Your task to perform on an android device: Search for vegetarian restaurants on Maps Image 0: 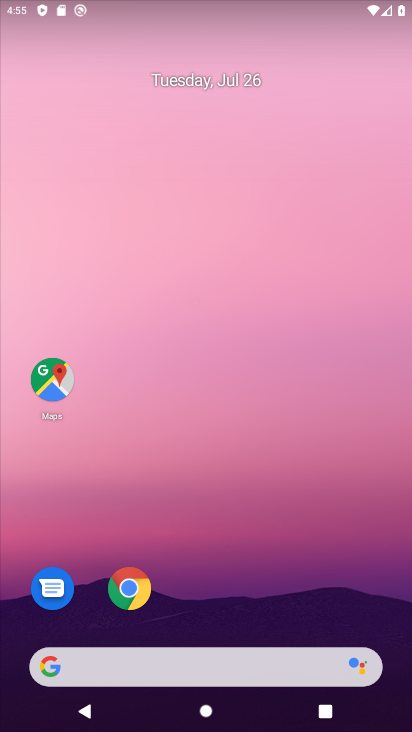
Step 0: drag from (231, 630) to (302, 150)
Your task to perform on an android device: Search for vegetarian restaurants on Maps Image 1: 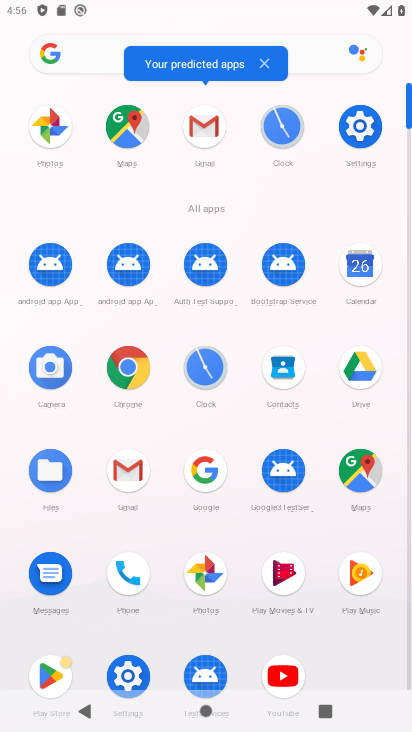
Step 1: click (360, 485)
Your task to perform on an android device: Search for vegetarian restaurants on Maps Image 2: 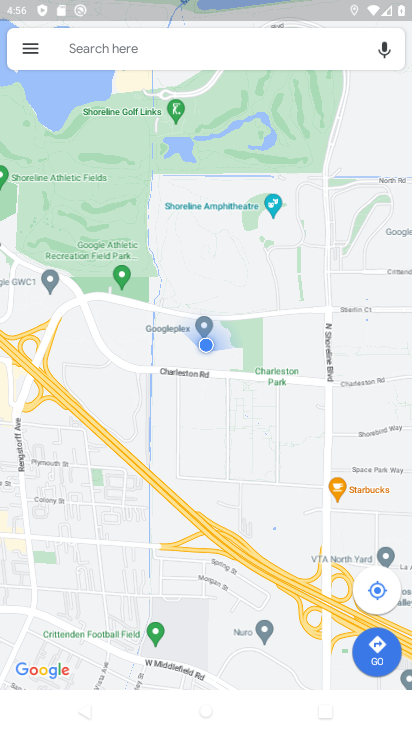
Step 2: click (257, 46)
Your task to perform on an android device: Search for vegetarian restaurants on Maps Image 3: 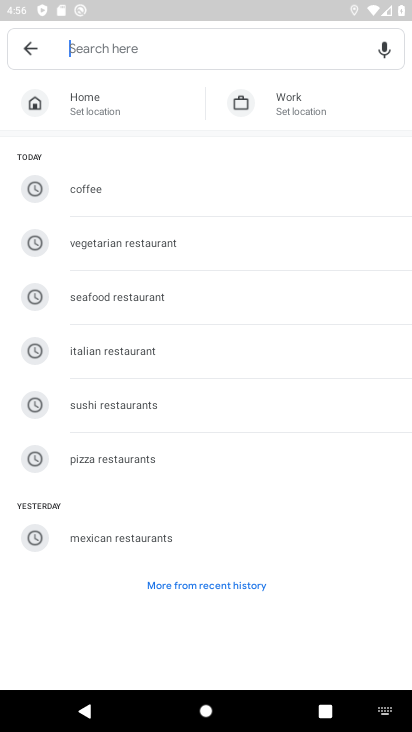
Step 3: click (129, 247)
Your task to perform on an android device: Search for vegetarian restaurants on Maps Image 4: 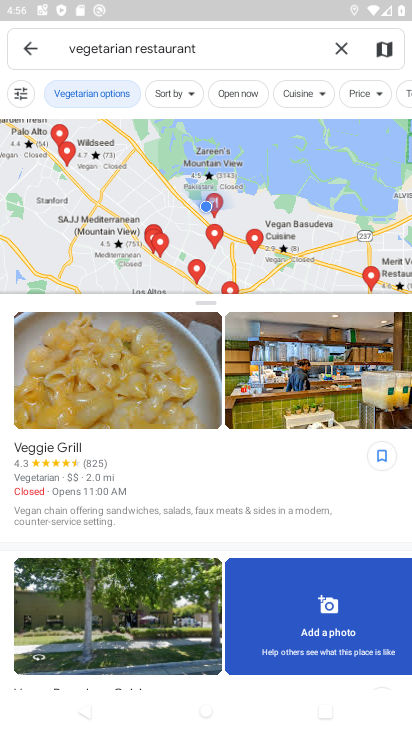
Step 4: task complete